Your task to perform on an android device: check the backup settings in the google photos Image 0: 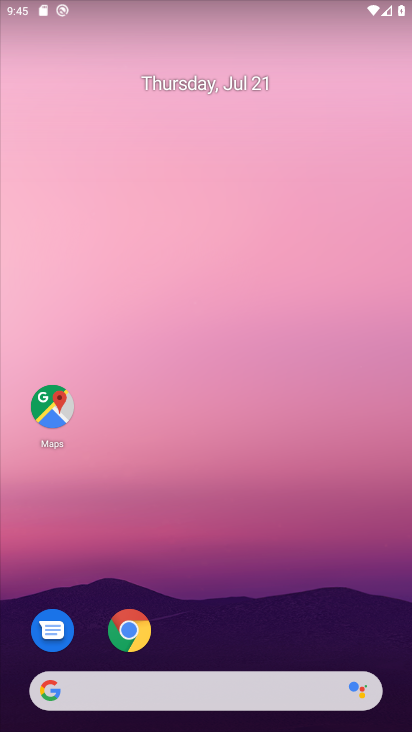
Step 0: drag from (355, 604) to (410, 14)
Your task to perform on an android device: check the backup settings in the google photos Image 1: 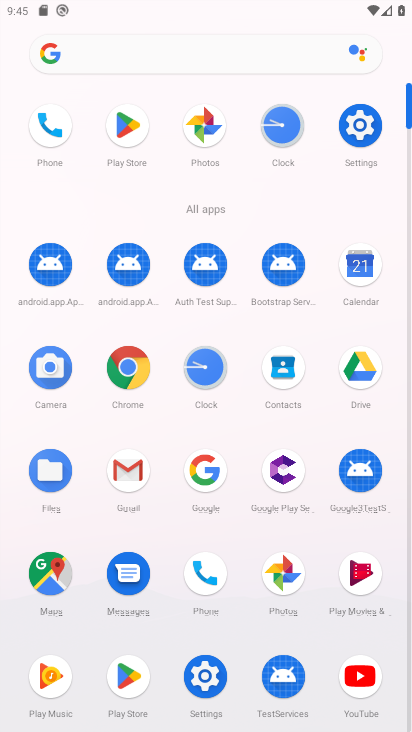
Step 1: click (186, 121)
Your task to perform on an android device: check the backup settings in the google photos Image 2: 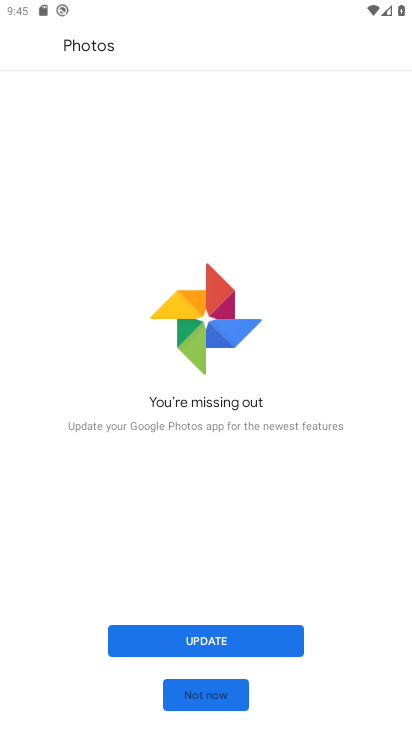
Step 2: click (239, 641)
Your task to perform on an android device: check the backup settings in the google photos Image 3: 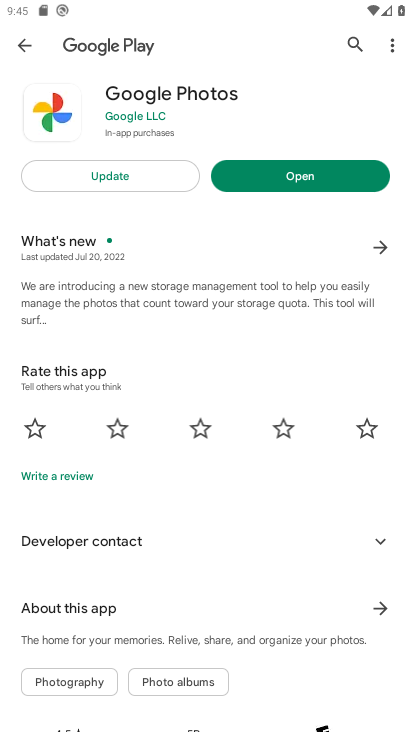
Step 3: click (79, 186)
Your task to perform on an android device: check the backup settings in the google photos Image 4: 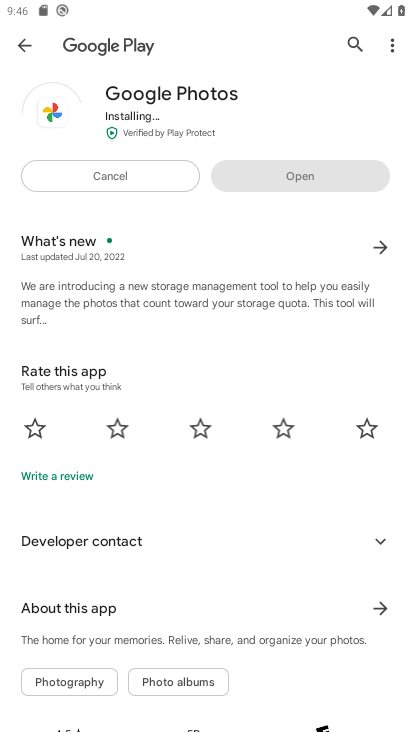
Step 4: click (360, 184)
Your task to perform on an android device: check the backup settings in the google photos Image 5: 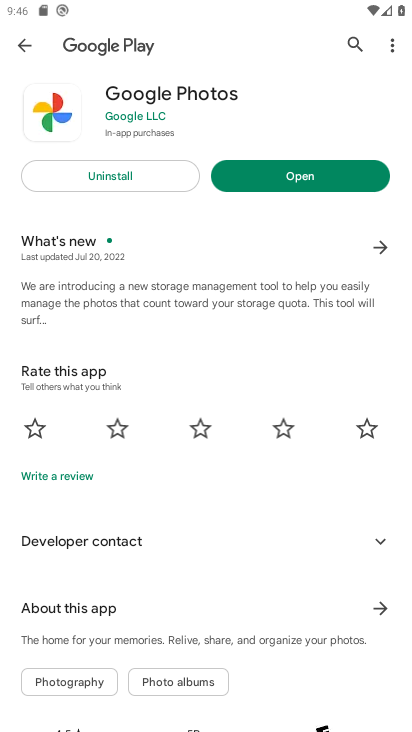
Step 5: click (296, 177)
Your task to perform on an android device: check the backup settings in the google photos Image 6: 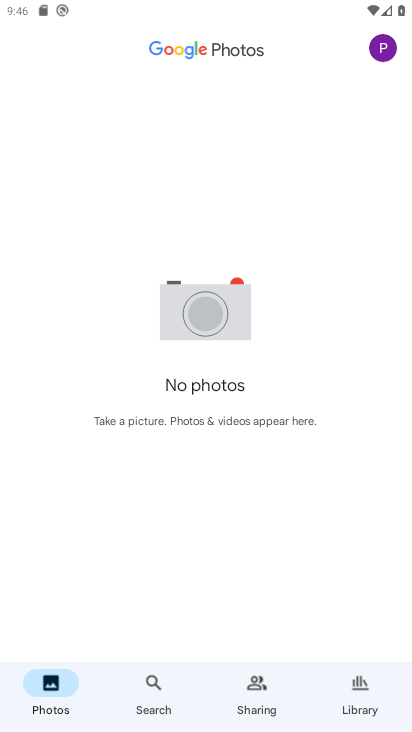
Step 6: click (376, 53)
Your task to perform on an android device: check the backup settings in the google photos Image 7: 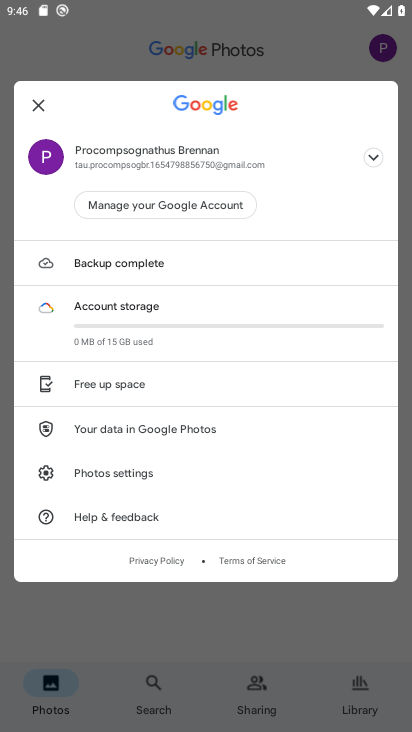
Step 7: click (78, 468)
Your task to perform on an android device: check the backup settings in the google photos Image 8: 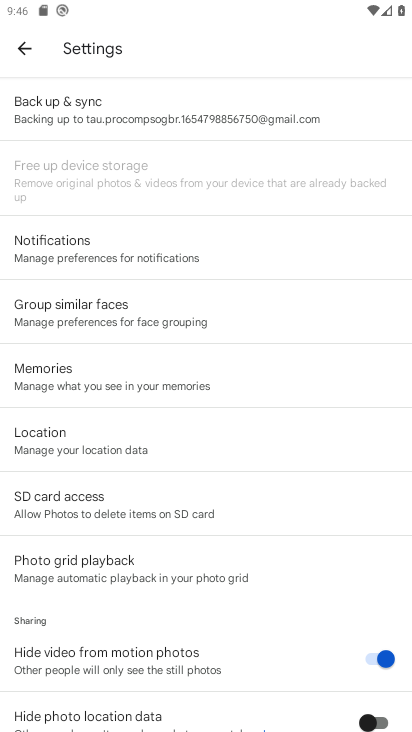
Step 8: click (99, 112)
Your task to perform on an android device: check the backup settings in the google photos Image 9: 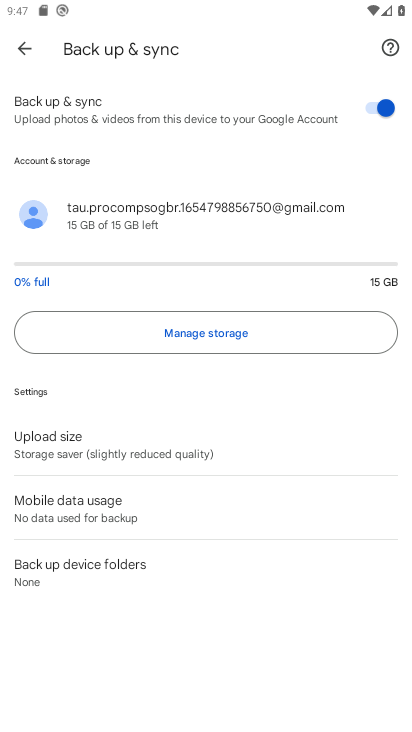
Step 9: task complete